Your task to perform on an android device: change alarm snooze length Image 0: 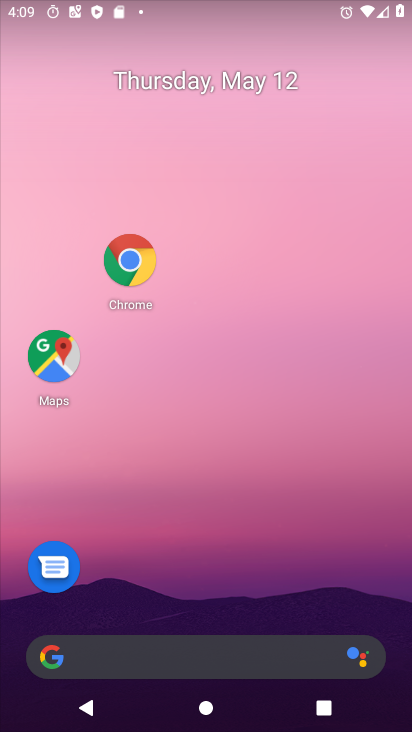
Step 0: drag from (204, 456) to (204, 160)
Your task to perform on an android device: change alarm snooze length Image 1: 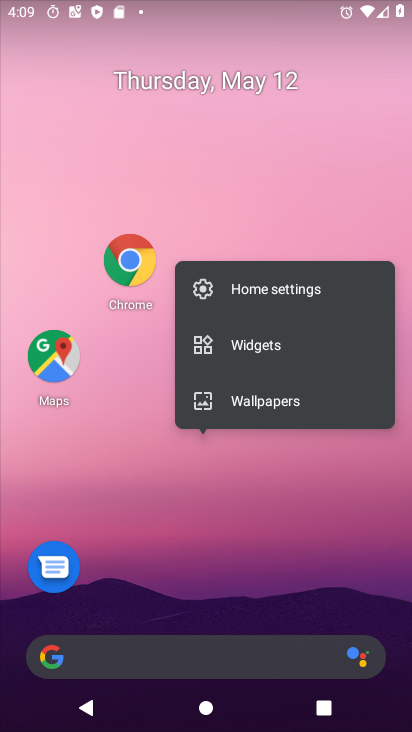
Step 1: click (79, 509)
Your task to perform on an android device: change alarm snooze length Image 2: 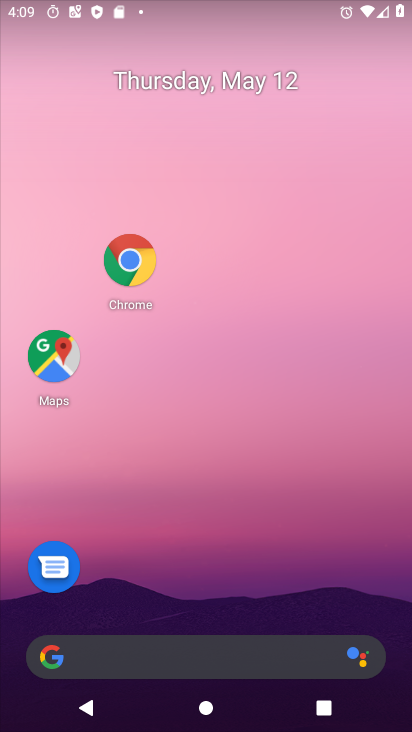
Step 2: drag from (204, 638) to (203, 233)
Your task to perform on an android device: change alarm snooze length Image 3: 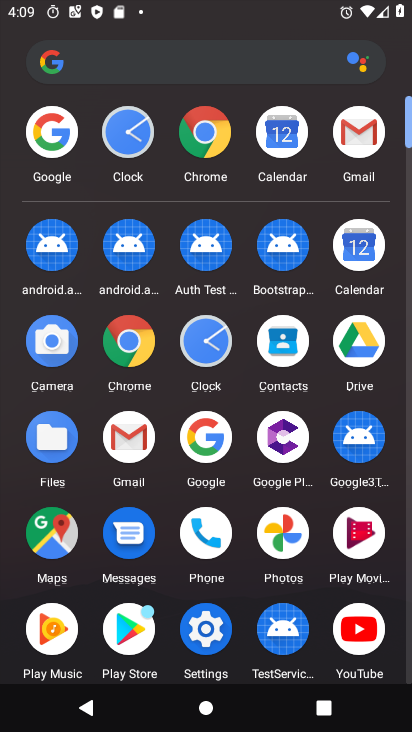
Step 3: click (209, 349)
Your task to perform on an android device: change alarm snooze length Image 4: 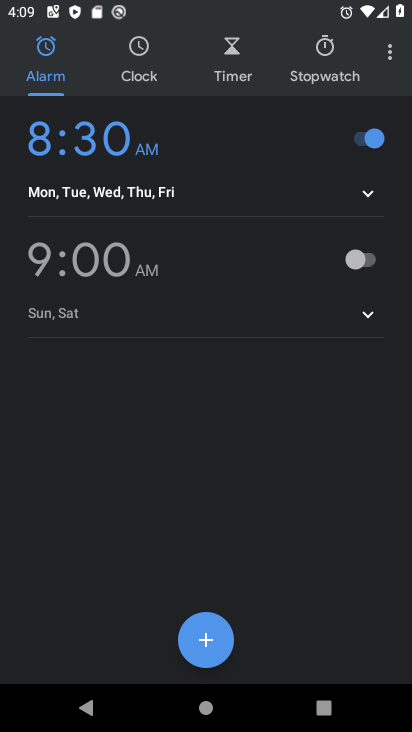
Step 4: click (396, 43)
Your task to perform on an android device: change alarm snooze length Image 5: 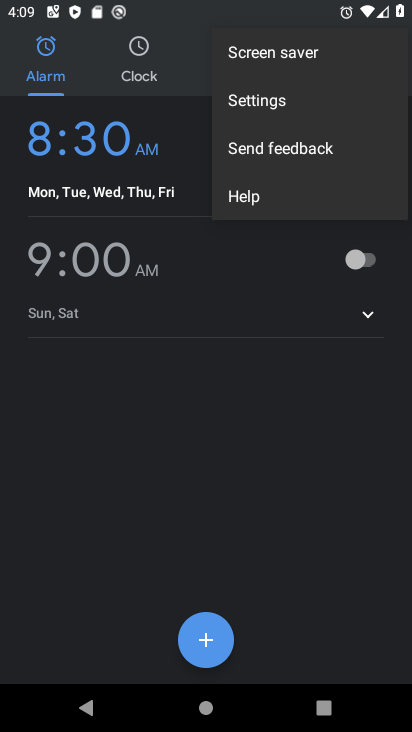
Step 5: click (242, 102)
Your task to perform on an android device: change alarm snooze length Image 6: 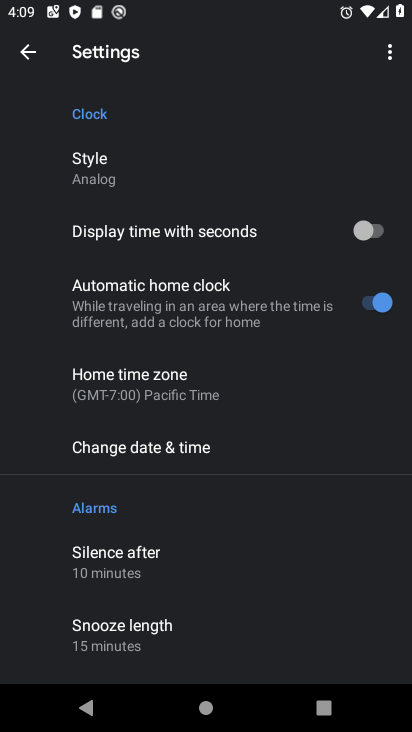
Step 6: drag from (133, 631) to (107, 377)
Your task to perform on an android device: change alarm snooze length Image 7: 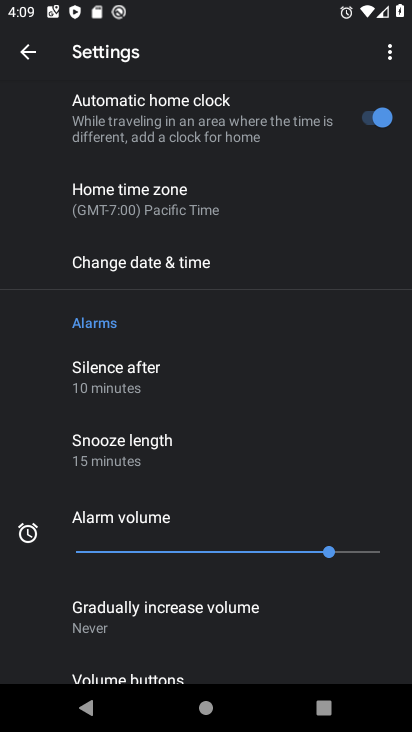
Step 7: click (115, 453)
Your task to perform on an android device: change alarm snooze length Image 8: 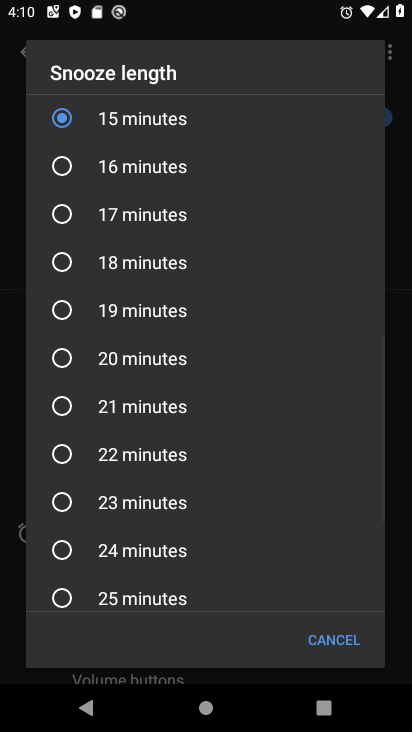
Step 8: click (124, 264)
Your task to perform on an android device: change alarm snooze length Image 9: 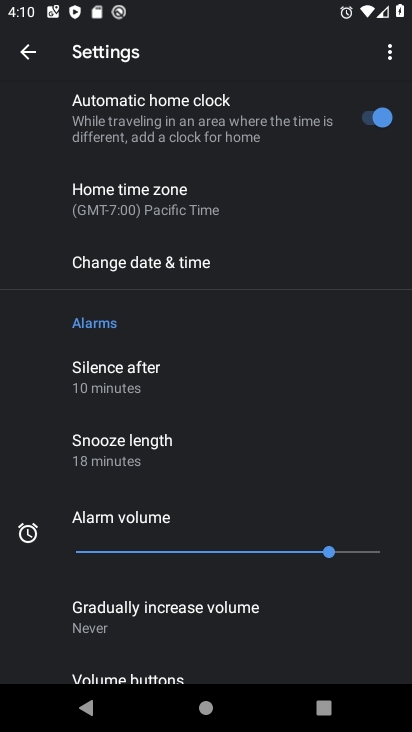
Step 9: task complete